Your task to perform on an android device: turn off smart reply in the gmail app Image 0: 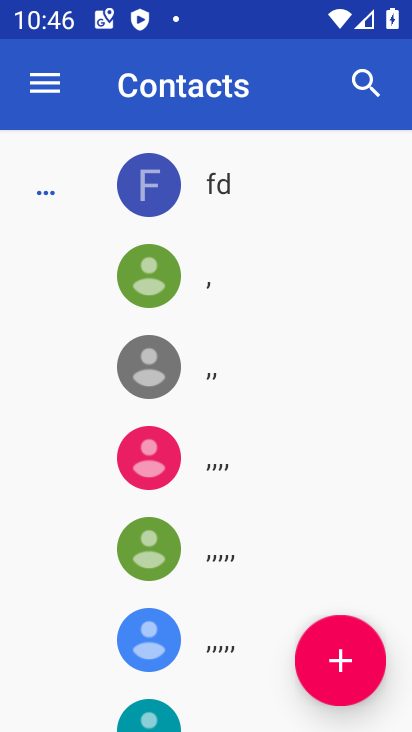
Step 0: press home button
Your task to perform on an android device: turn off smart reply in the gmail app Image 1: 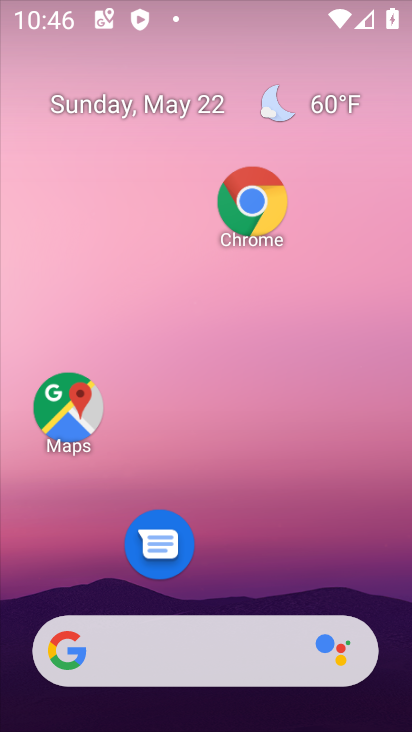
Step 1: drag from (292, 570) to (330, 39)
Your task to perform on an android device: turn off smart reply in the gmail app Image 2: 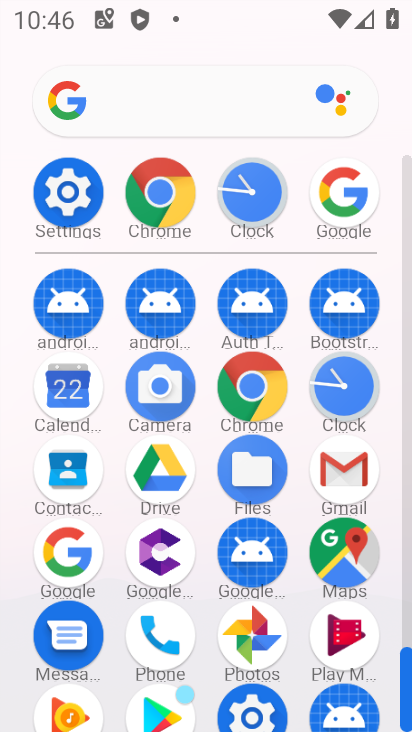
Step 2: click (338, 465)
Your task to perform on an android device: turn off smart reply in the gmail app Image 3: 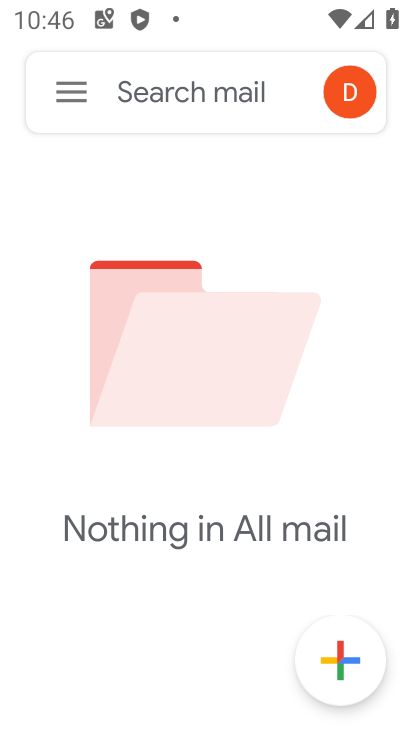
Step 3: click (64, 97)
Your task to perform on an android device: turn off smart reply in the gmail app Image 4: 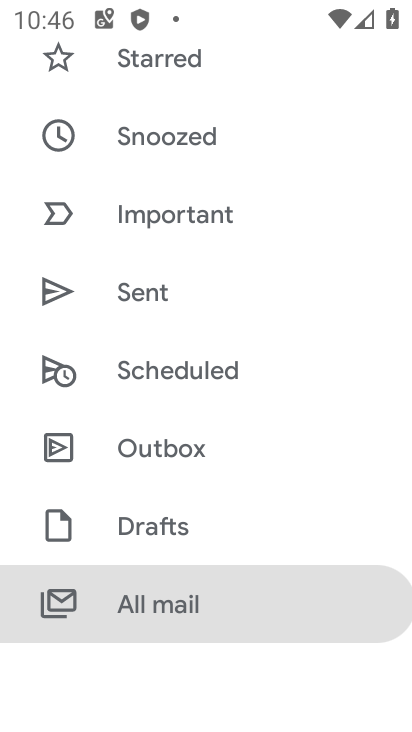
Step 4: drag from (241, 560) to (263, 140)
Your task to perform on an android device: turn off smart reply in the gmail app Image 5: 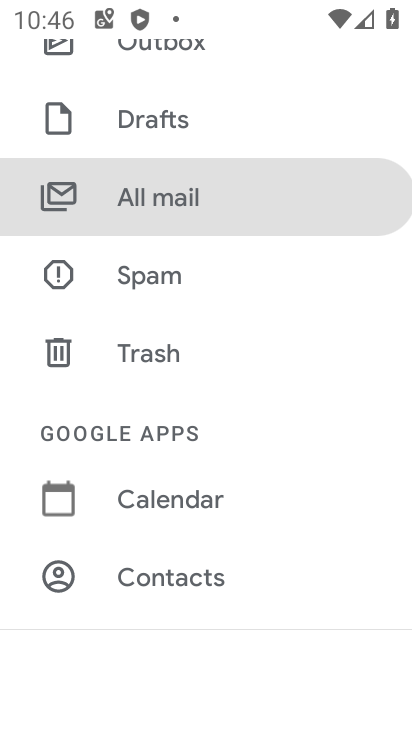
Step 5: drag from (188, 607) to (194, 258)
Your task to perform on an android device: turn off smart reply in the gmail app Image 6: 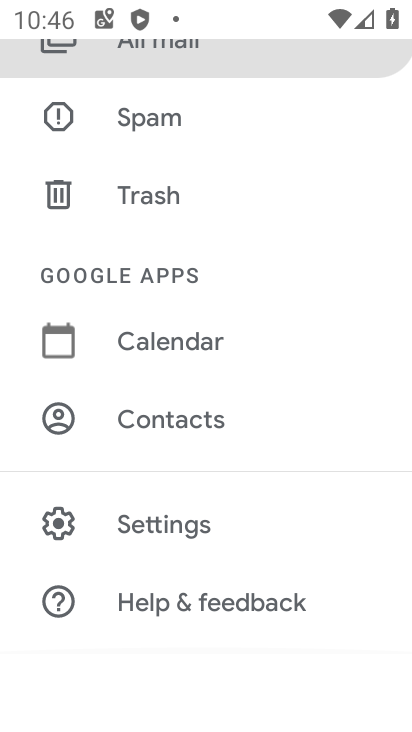
Step 6: click (154, 547)
Your task to perform on an android device: turn off smart reply in the gmail app Image 7: 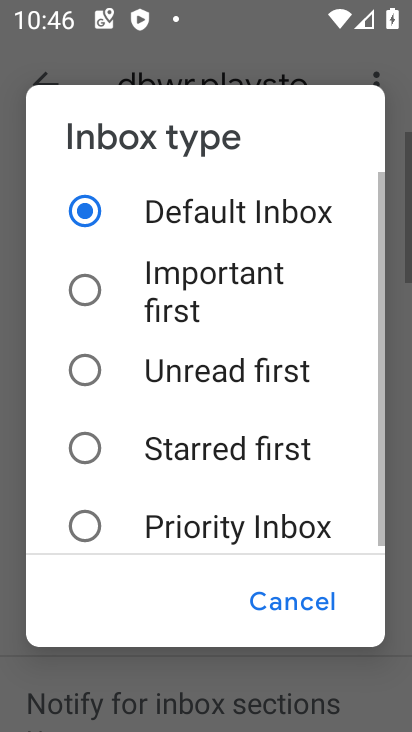
Step 7: drag from (256, 553) to (256, 231)
Your task to perform on an android device: turn off smart reply in the gmail app Image 8: 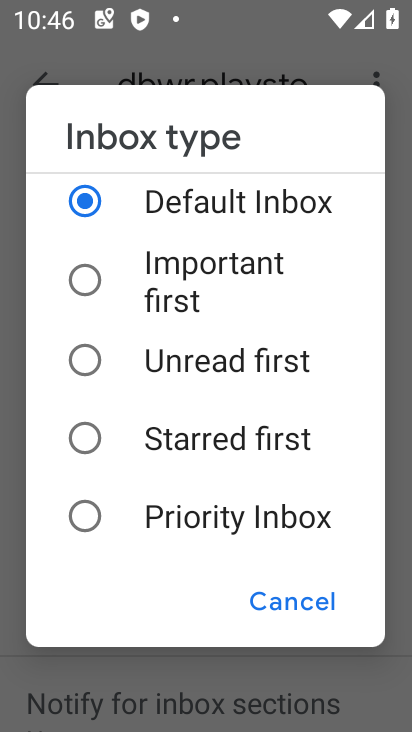
Step 8: click (301, 604)
Your task to perform on an android device: turn off smart reply in the gmail app Image 9: 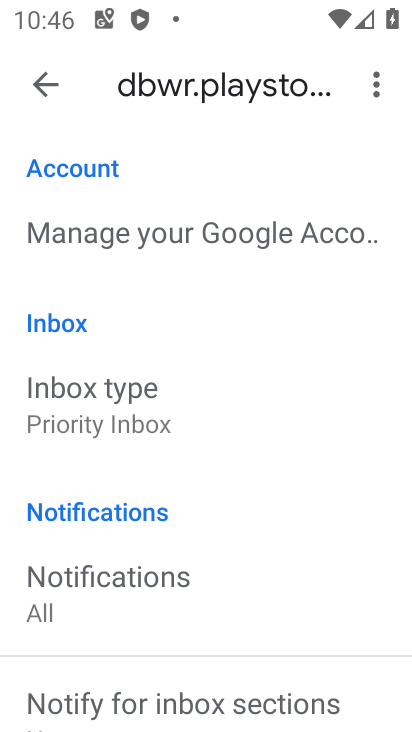
Step 9: drag from (263, 565) to (244, 108)
Your task to perform on an android device: turn off smart reply in the gmail app Image 10: 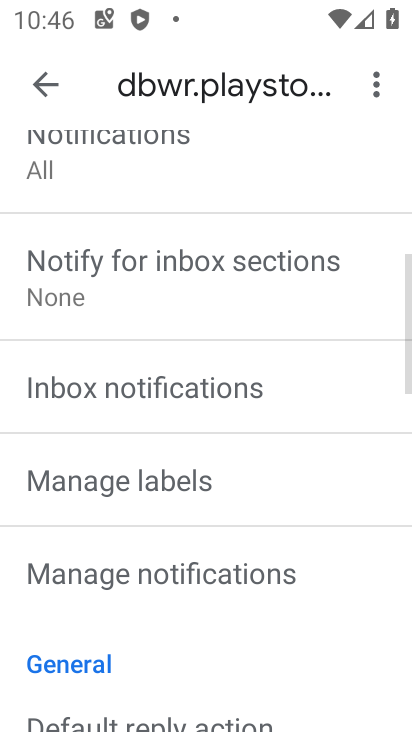
Step 10: drag from (267, 607) to (244, 185)
Your task to perform on an android device: turn off smart reply in the gmail app Image 11: 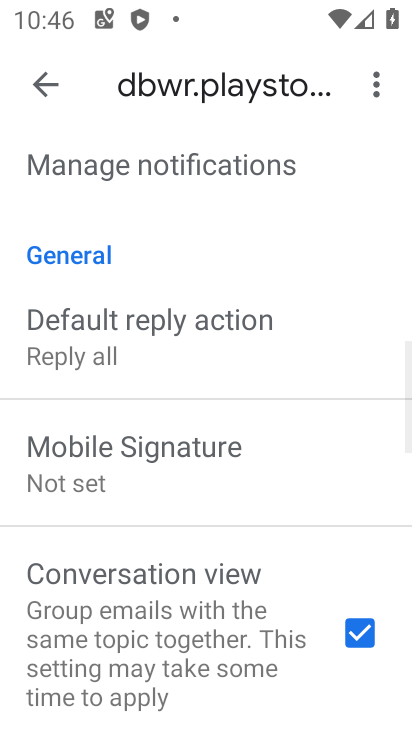
Step 11: drag from (258, 648) to (239, 218)
Your task to perform on an android device: turn off smart reply in the gmail app Image 12: 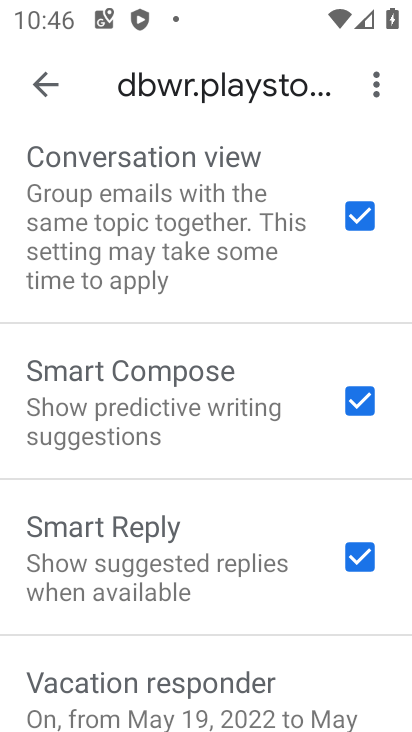
Step 12: click (358, 559)
Your task to perform on an android device: turn off smart reply in the gmail app Image 13: 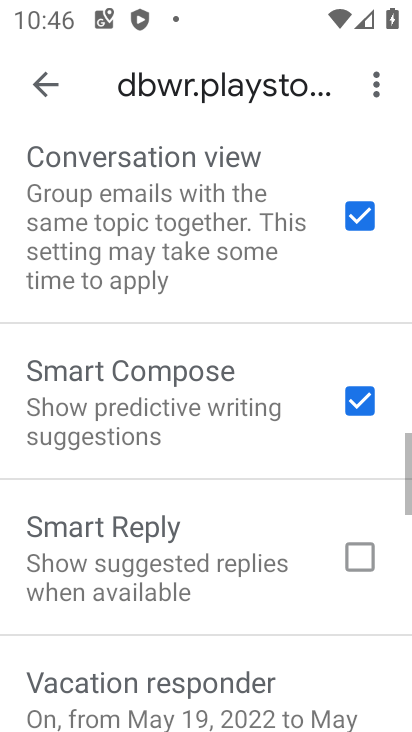
Step 13: task complete